Your task to perform on an android device: turn notification dots on Image 0: 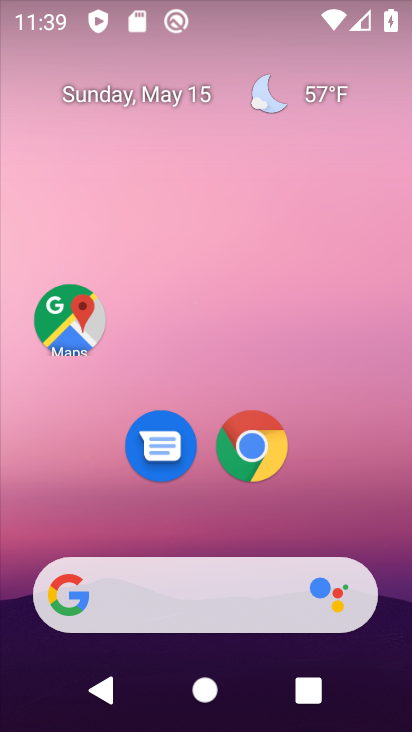
Step 0: drag from (201, 526) to (283, 17)
Your task to perform on an android device: turn notification dots on Image 1: 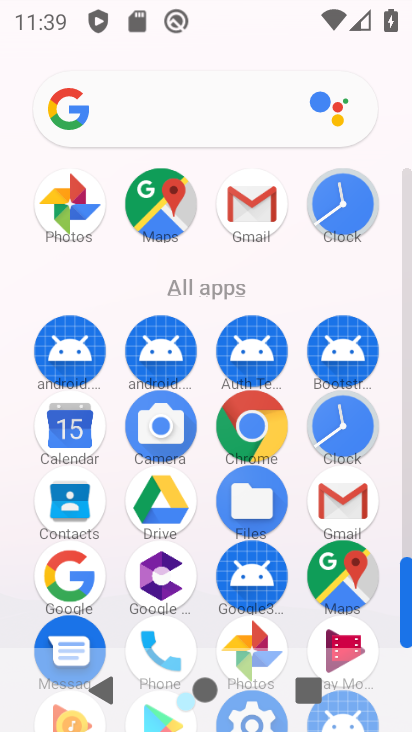
Step 1: drag from (203, 473) to (255, 218)
Your task to perform on an android device: turn notification dots on Image 2: 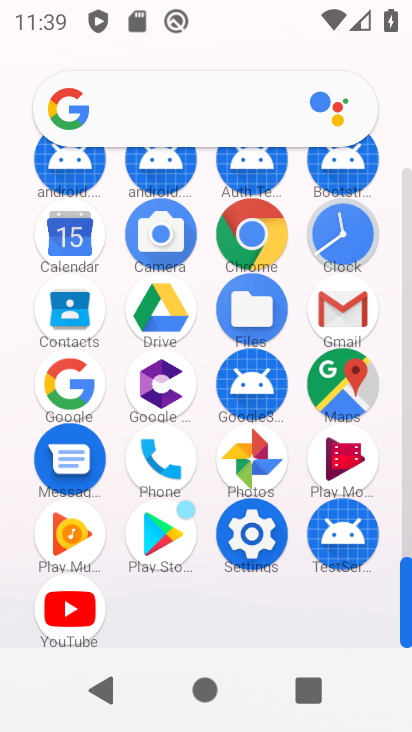
Step 2: click (258, 545)
Your task to perform on an android device: turn notification dots on Image 3: 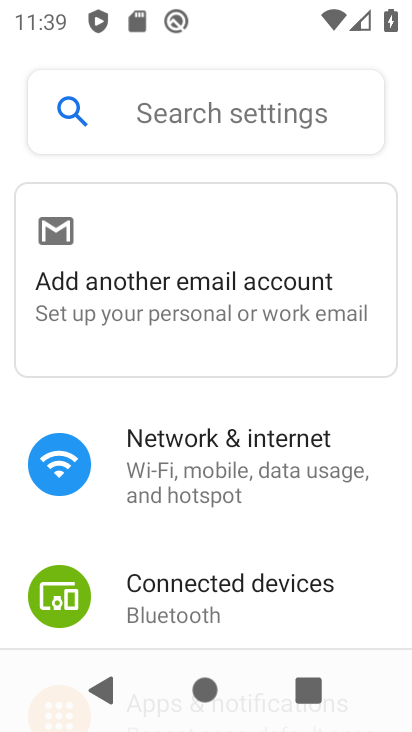
Step 3: drag from (230, 525) to (287, 230)
Your task to perform on an android device: turn notification dots on Image 4: 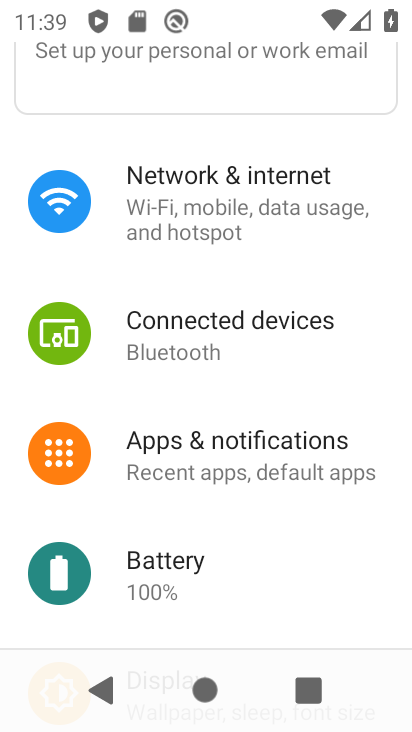
Step 4: click (239, 472)
Your task to perform on an android device: turn notification dots on Image 5: 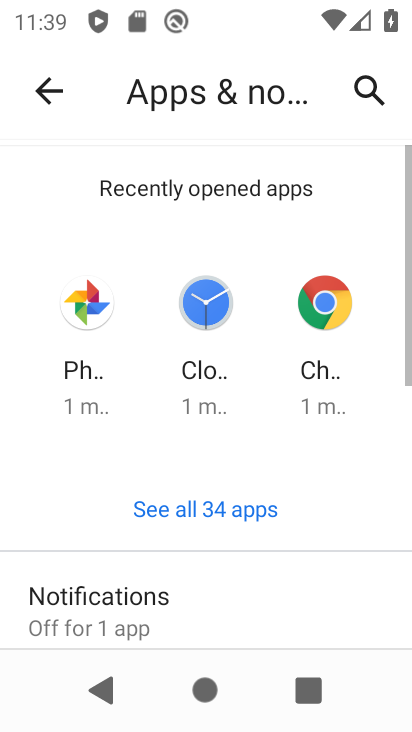
Step 5: drag from (184, 570) to (283, 181)
Your task to perform on an android device: turn notification dots on Image 6: 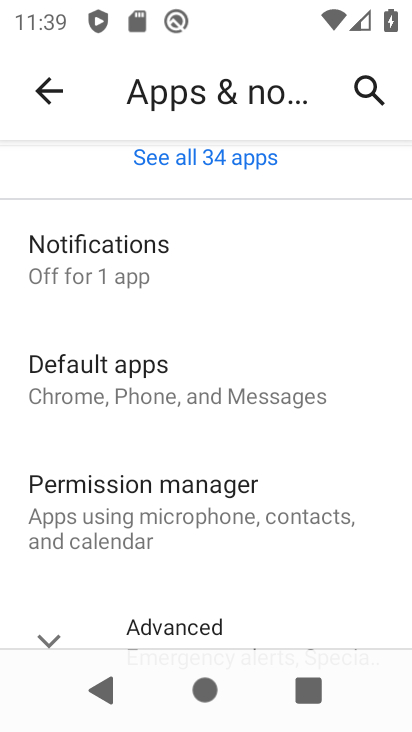
Step 6: click (115, 280)
Your task to perform on an android device: turn notification dots on Image 7: 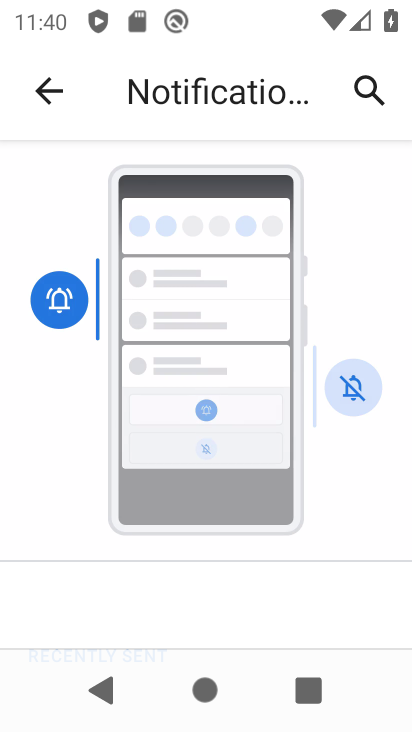
Step 7: drag from (227, 567) to (280, 181)
Your task to perform on an android device: turn notification dots on Image 8: 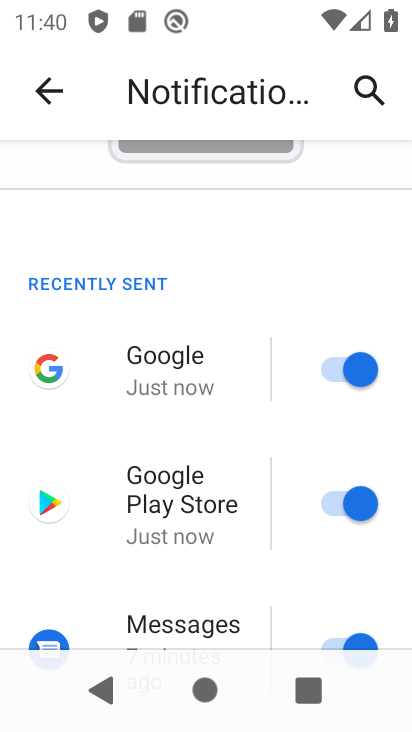
Step 8: drag from (185, 551) to (256, 10)
Your task to perform on an android device: turn notification dots on Image 9: 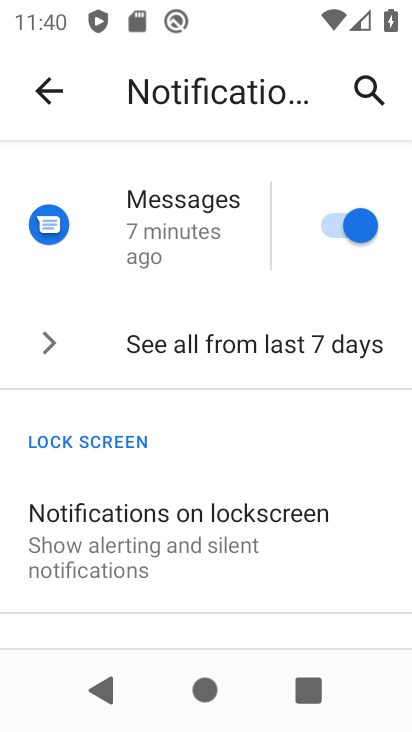
Step 9: drag from (141, 535) to (210, 13)
Your task to perform on an android device: turn notification dots on Image 10: 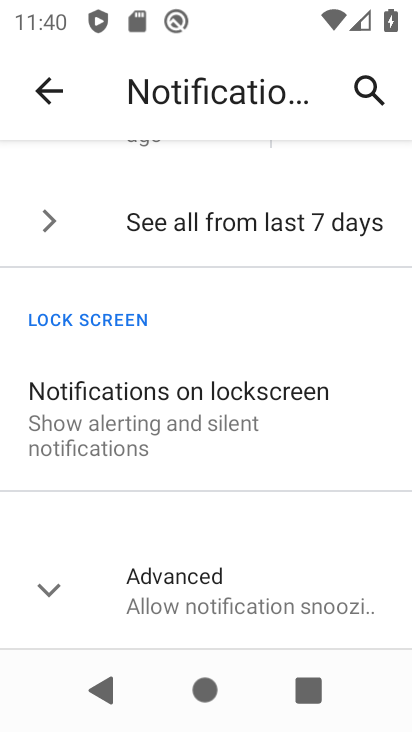
Step 10: click (153, 591)
Your task to perform on an android device: turn notification dots on Image 11: 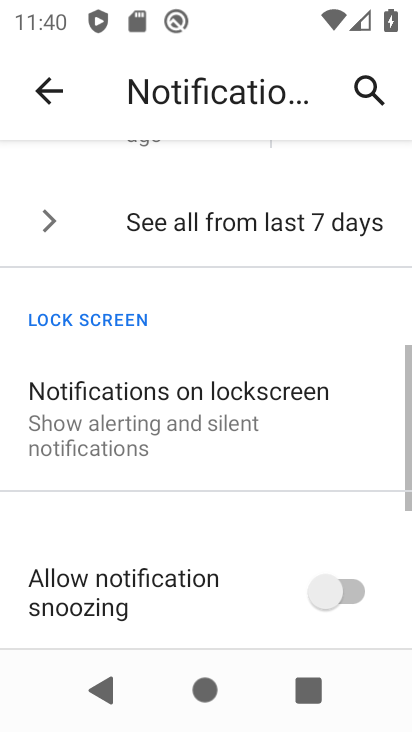
Step 11: task complete